Your task to perform on an android device: Open Google Maps Image 0: 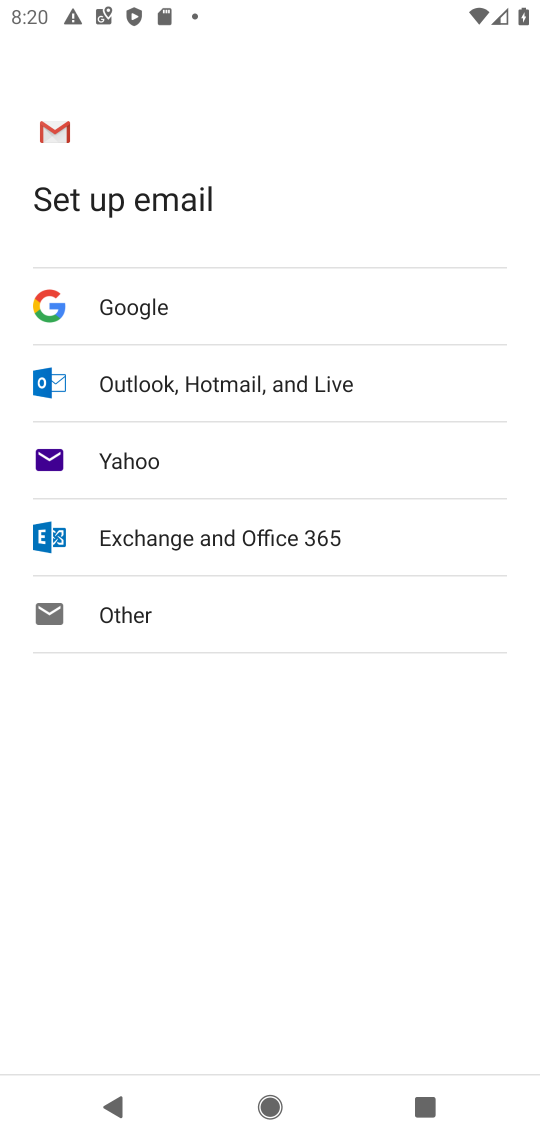
Step 0: press home button
Your task to perform on an android device: Open Google Maps Image 1: 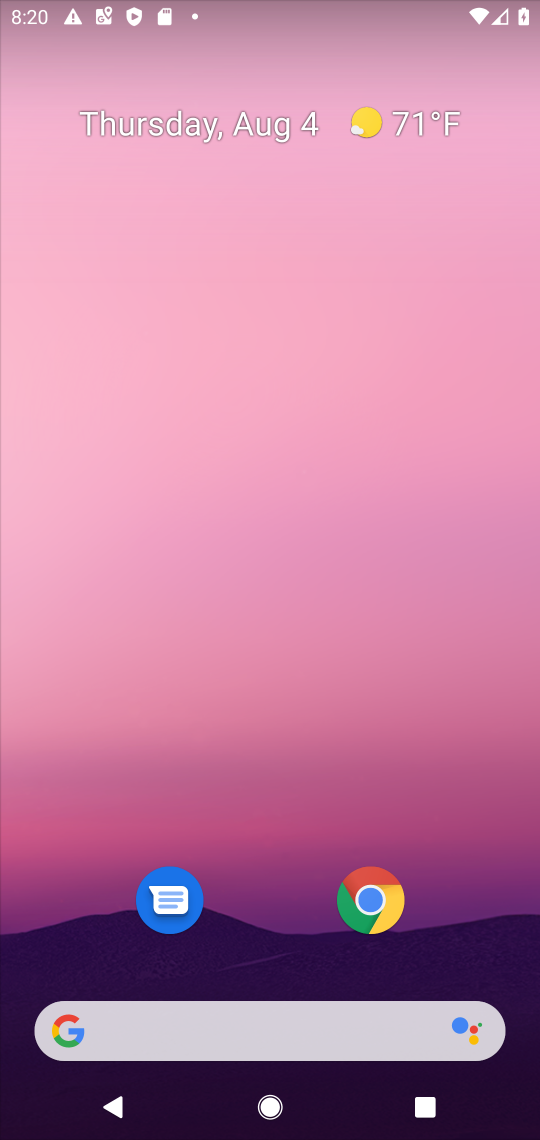
Step 1: click (235, 212)
Your task to perform on an android device: Open Google Maps Image 2: 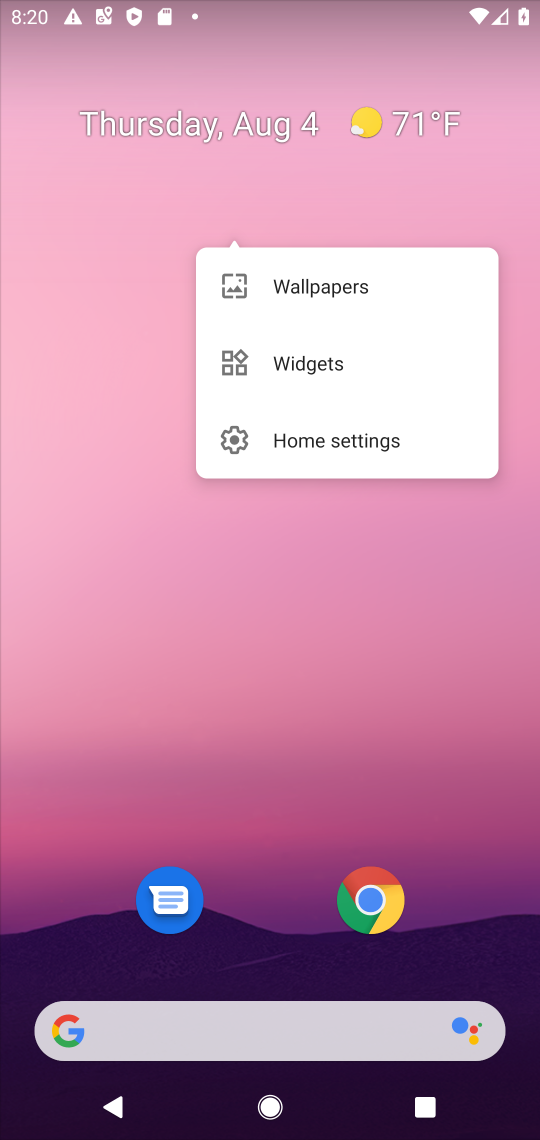
Step 2: click (234, 906)
Your task to perform on an android device: Open Google Maps Image 3: 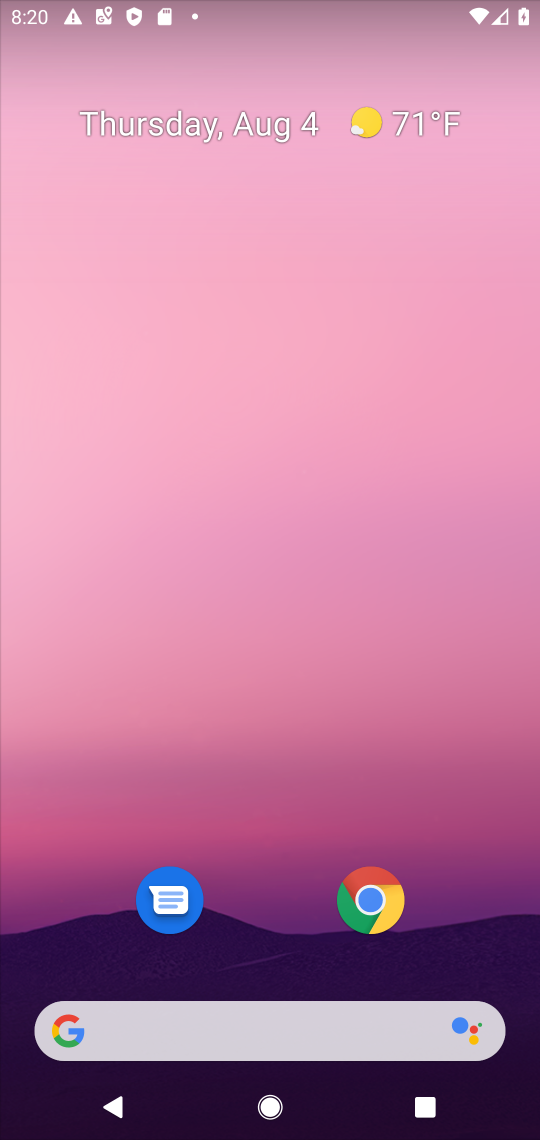
Step 3: drag from (253, 792) to (273, 37)
Your task to perform on an android device: Open Google Maps Image 4: 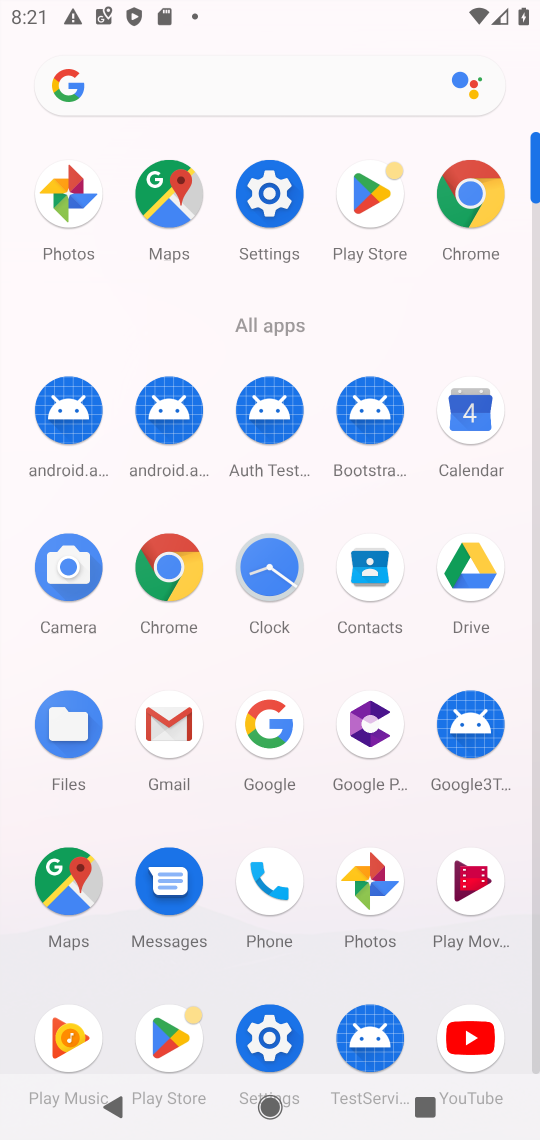
Step 4: click (161, 184)
Your task to perform on an android device: Open Google Maps Image 5: 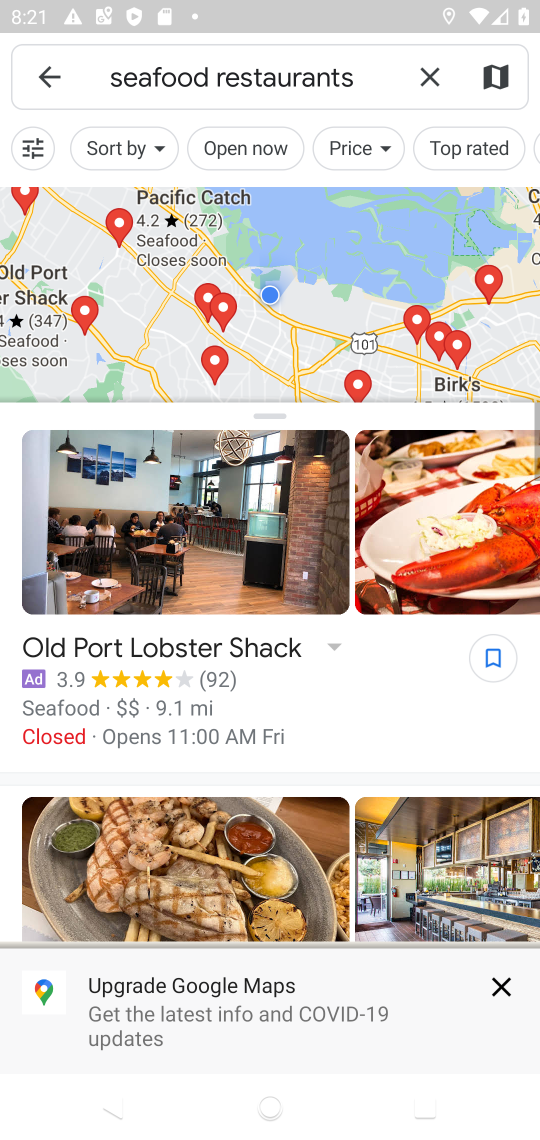
Step 5: task complete